Your task to perform on an android device: Open sound settings Image 0: 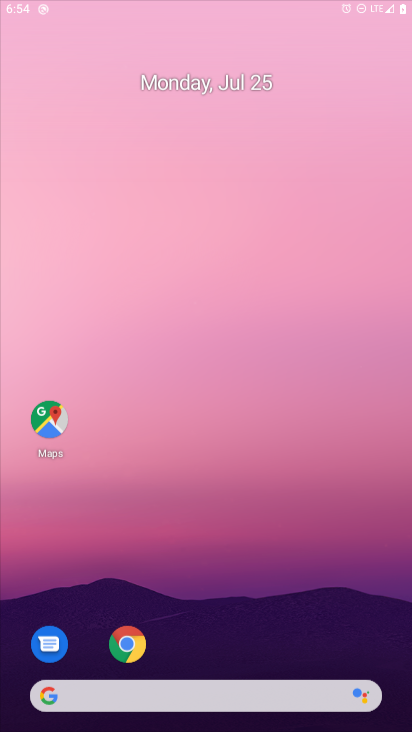
Step 0: press home button
Your task to perform on an android device: Open sound settings Image 1: 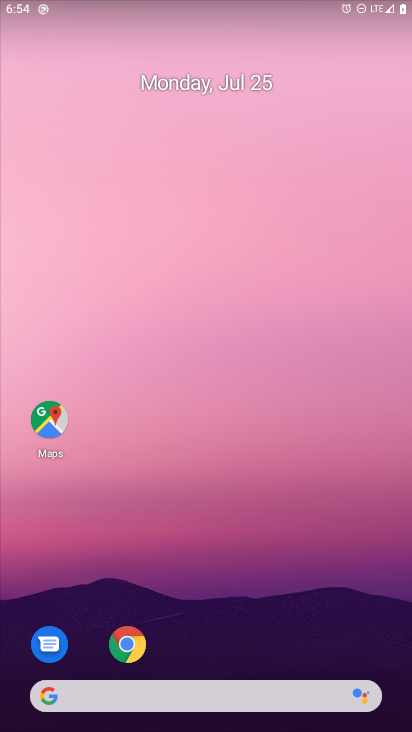
Step 1: drag from (243, 649) to (284, 50)
Your task to perform on an android device: Open sound settings Image 2: 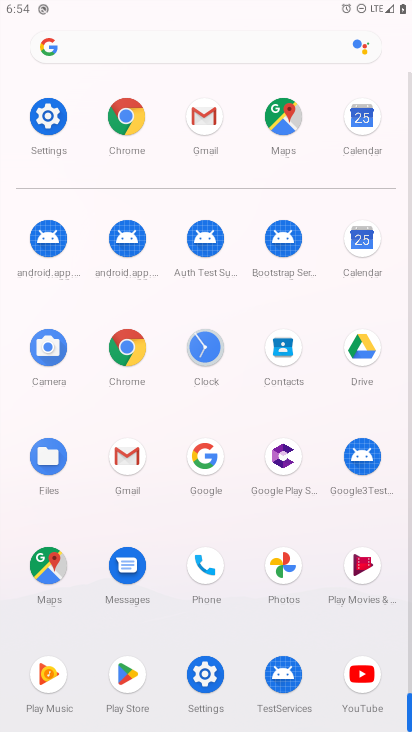
Step 2: click (48, 116)
Your task to perform on an android device: Open sound settings Image 3: 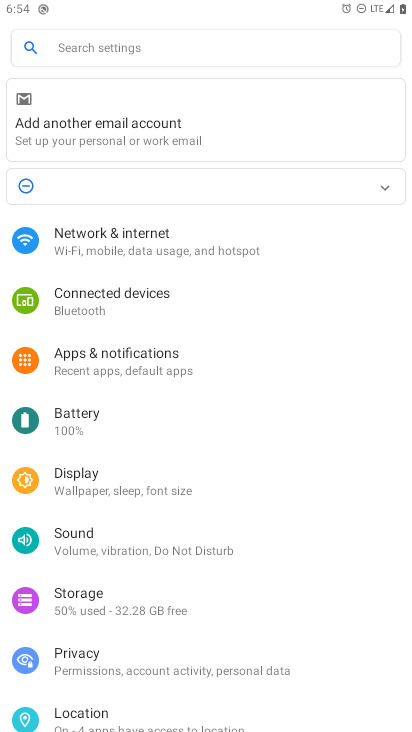
Step 3: click (73, 531)
Your task to perform on an android device: Open sound settings Image 4: 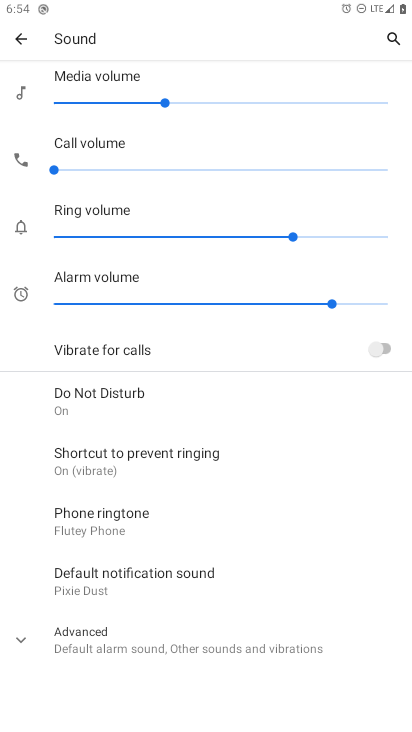
Step 4: task complete